Your task to perform on an android device: toggle show notifications on the lock screen Image 0: 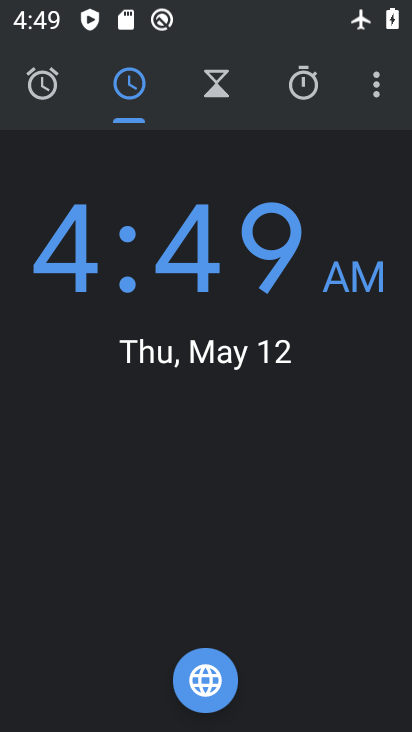
Step 0: press home button
Your task to perform on an android device: toggle show notifications on the lock screen Image 1: 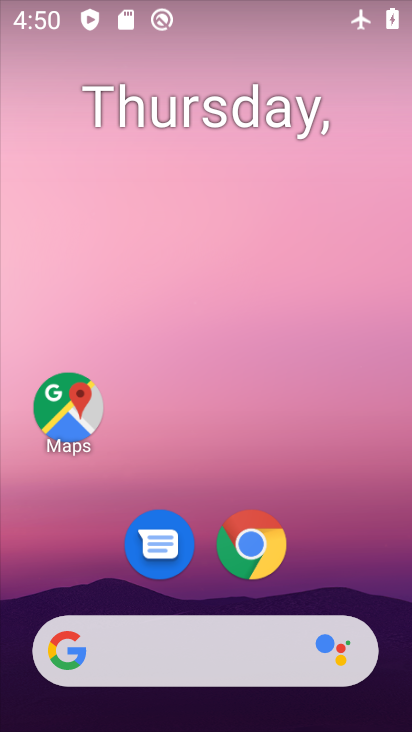
Step 1: drag from (351, 559) to (309, 221)
Your task to perform on an android device: toggle show notifications on the lock screen Image 2: 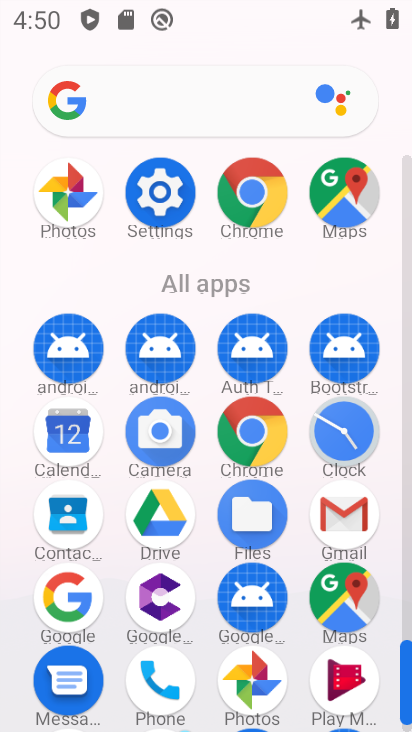
Step 2: click (165, 206)
Your task to perform on an android device: toggle show notifications on the lock screen Image 3: 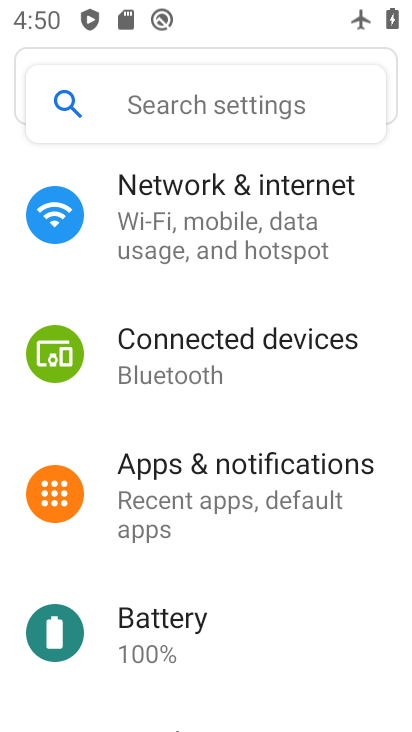
Step 3: click (216, 469)
Your task to perform on an android device: toggle show notifications on the lock screen Image 4: 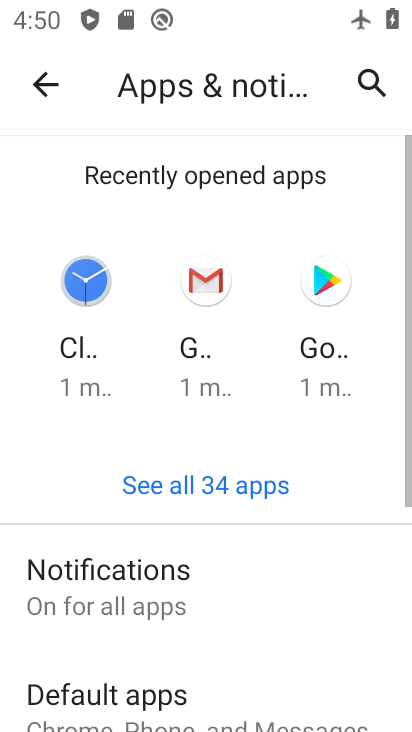
Step 4: drag from (149, 653) to (129, 265)
Your task to perform on an android device: toggle show notifications on the lock screen Image 5: 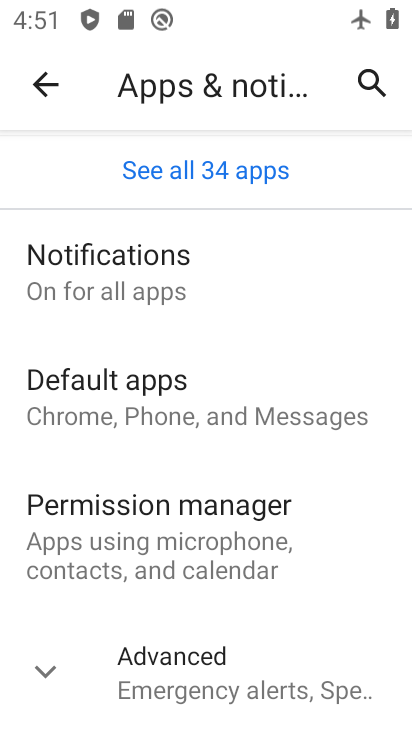
Step 5: click (128, 271)
Your task to perform on an android device: toggle show notifications on the lock screen Image 6: 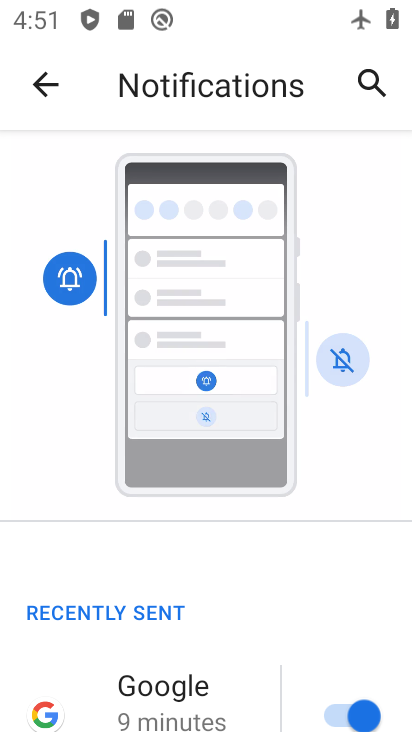
Step 6: drag from (148, 581) to (109, 232)
Your task to perform on an android device: toggle show notifications on the lock screen Image 7: 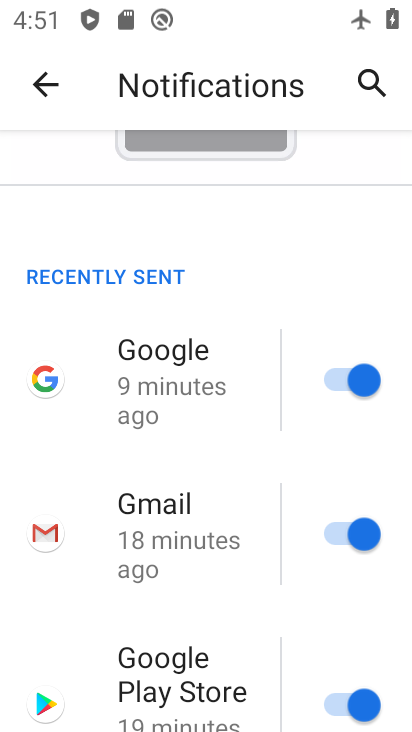
Step 7: drag from (171, 625) to (163, 210)
Your task to perform on an android device: toggle show notifications on the lock screen Image 8: 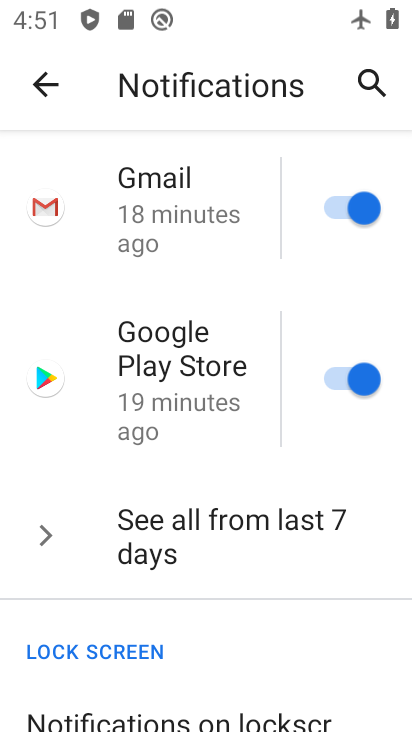
Step 8: drag from (200, 613) to (181, 277)
Your task to perform on an android device: toggle show notifications on the lock screen Image 9: 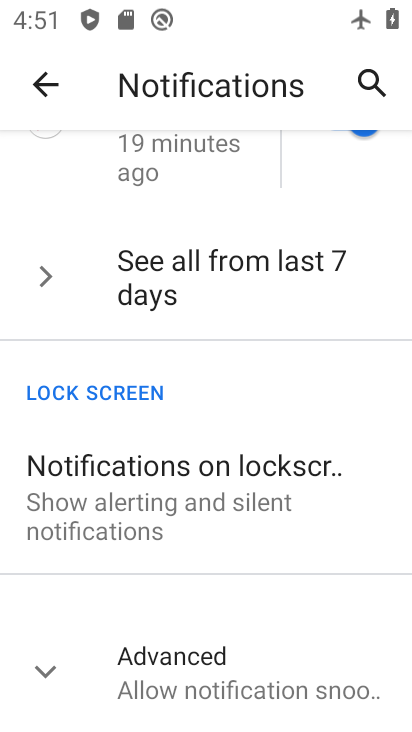
Step 9: click (195, 489)
Your task to perform on an android device: toggle show notifications on the lock screen Image 10: 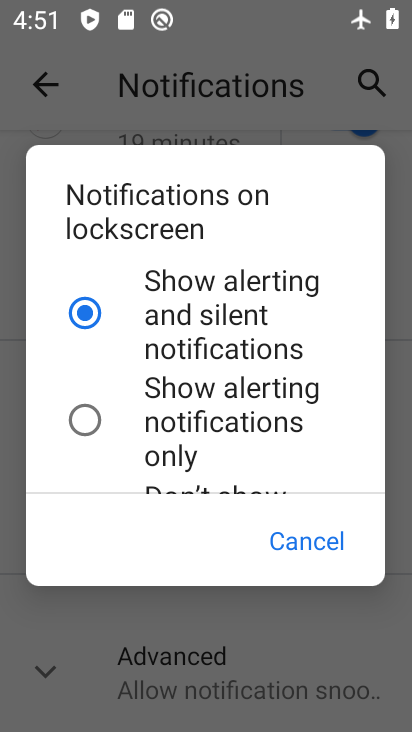
Step 10: drag from (245, 451) to (253, 221)
Your task to perform on an android device: toggle show notifications on the lock screen Image 11: 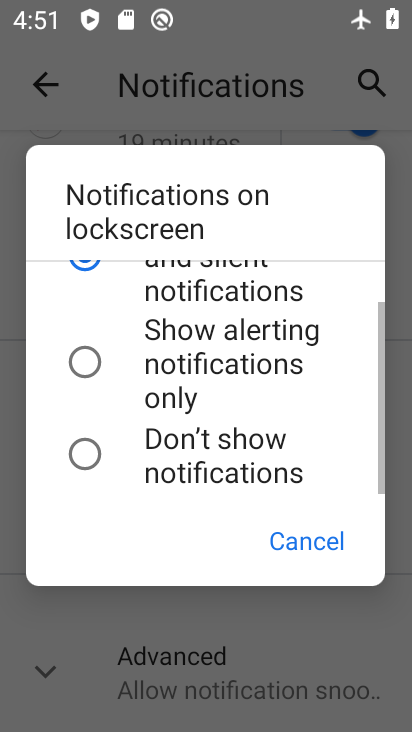
Step 11: click (206, 469)
Your task to perform on an android device: toggle show notifications on the lock screen Image 12: 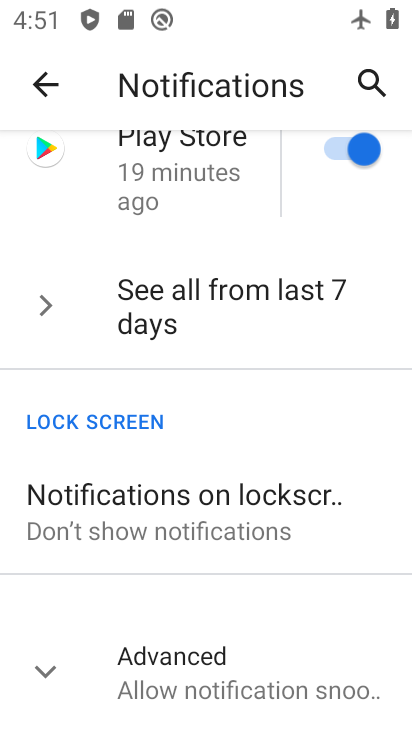
Step 12: task complete